Your task to perform on an android device: turn on showing notifications on the lock screen Image 0: 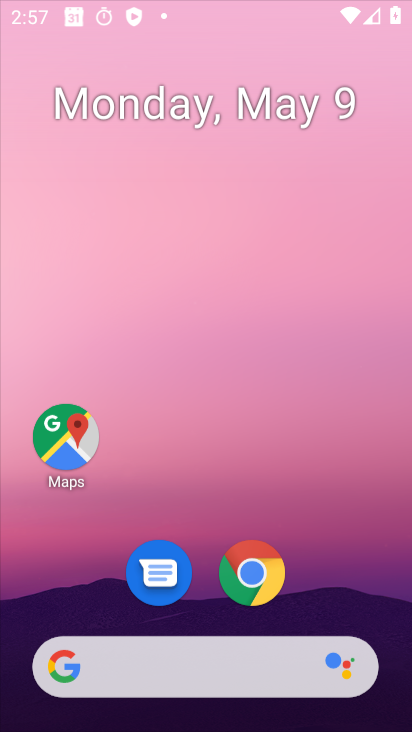
Step 0: click (251, 217)
Your task to perform on an android device: turn on showing notifications on the lock screen Image 1: 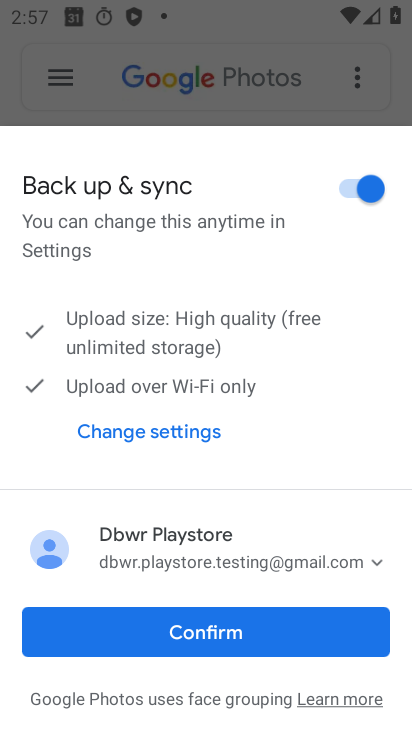
Step 1: click (263, 631)
Your task to perform on an android device: turn on showing notifications on the lock screen Image 2: 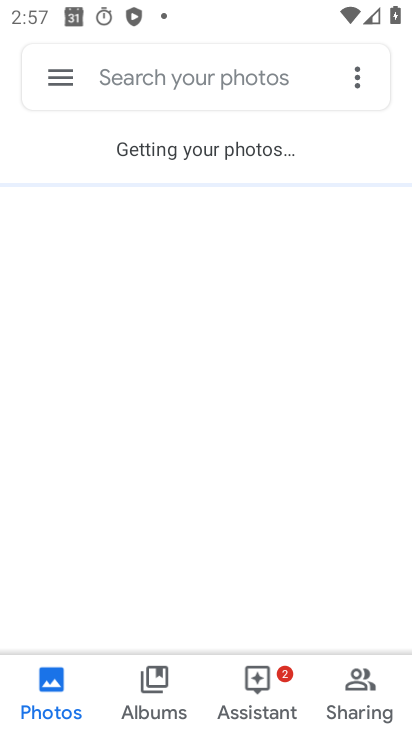
Step 2: press back button
Your task to perform on an android device: turn on showing notifications on the lock screen Image 3: 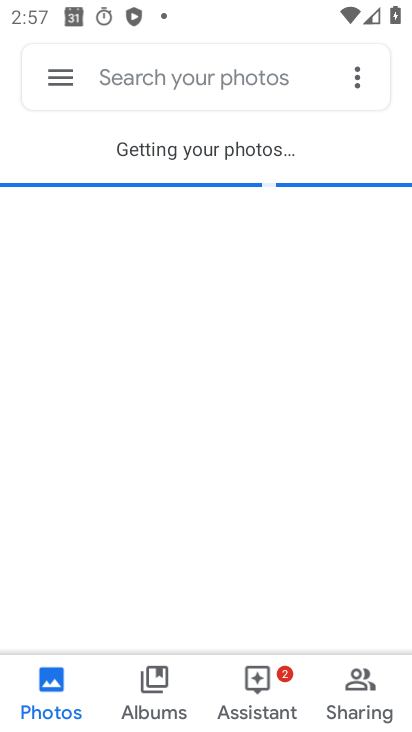
Step 3: press home button
Your task to perform on an android device: turn on showing notifications on the lock screen Image 4: 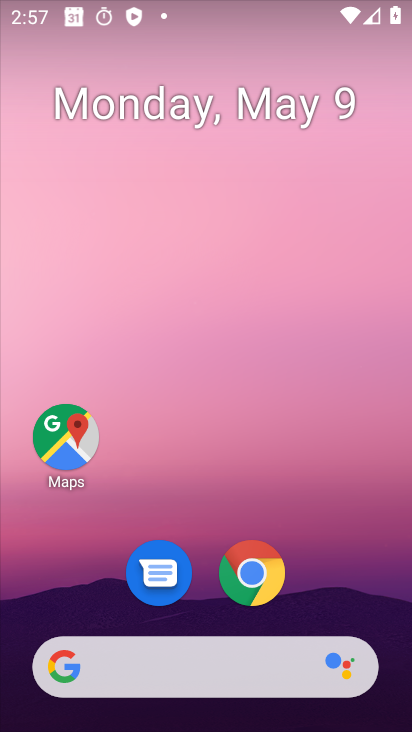
Step 4: drag from (279, 442) to (182, 198)
Your task to perform on an android device: turn on showing notifications on the lock screen Image 5: 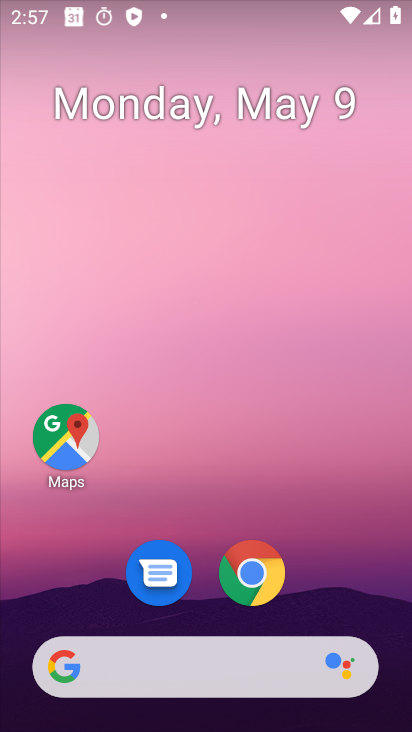
Step 5: drag from (338, 587) to (183, 166)
Your task to perform on an android device: turn on showing notifications on the lock screen Image 6: 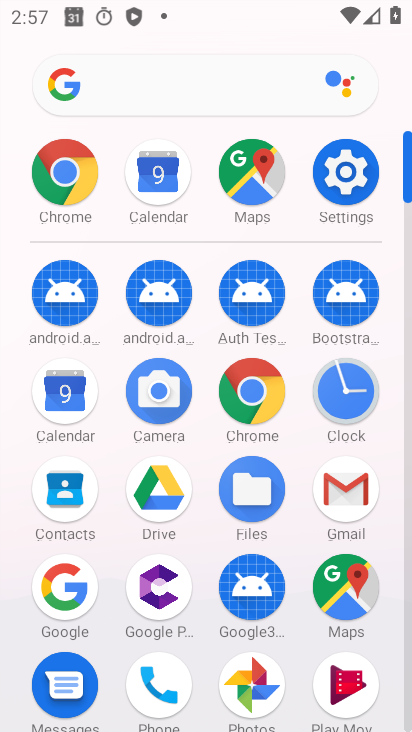
Step 6: click (328, 174)
Your task to perform on an android device: turn on showing notifications on the lock screen Image 7: 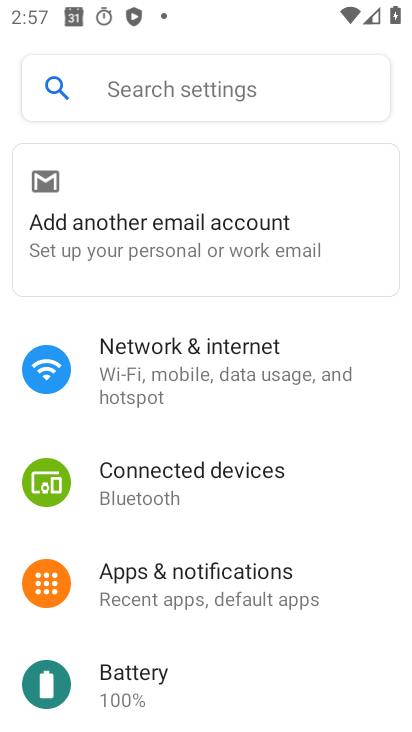
Step 7: click (206, 584)
Your task to perform on an android device: turn on showing notifications on the lock screen Image 8: 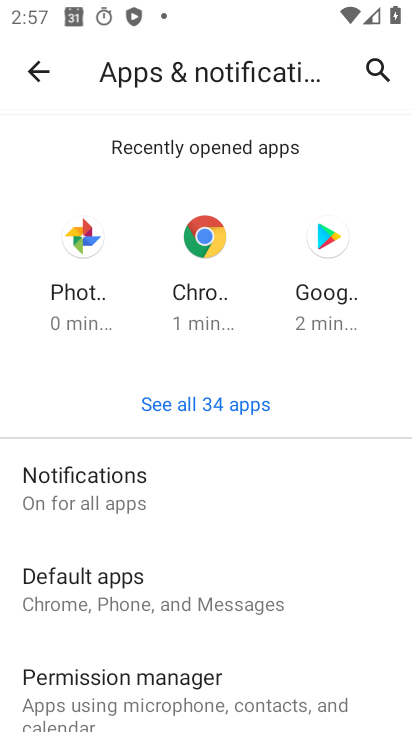
Step 8: click (92, 493)
Your task to perform on an android device: turn on showing notifications on the lock screen Image 9: 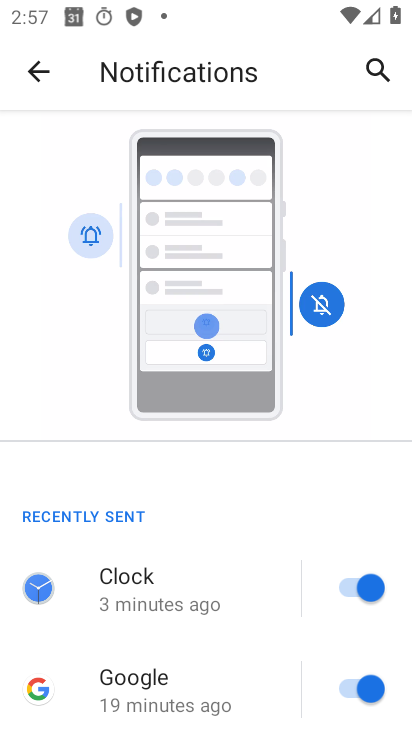
Step 9: drag from (141, 618) to (162, 271)
Your task to perform on an android device: turn on showing notifications on the lock screen Image 10: 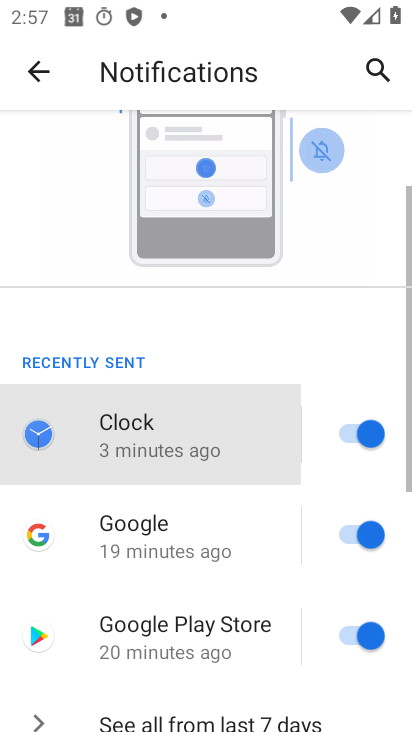
Step 10: click (222, 294)
Your task to perform on an android device: turn on showing notifications on the lock screen Image 11: 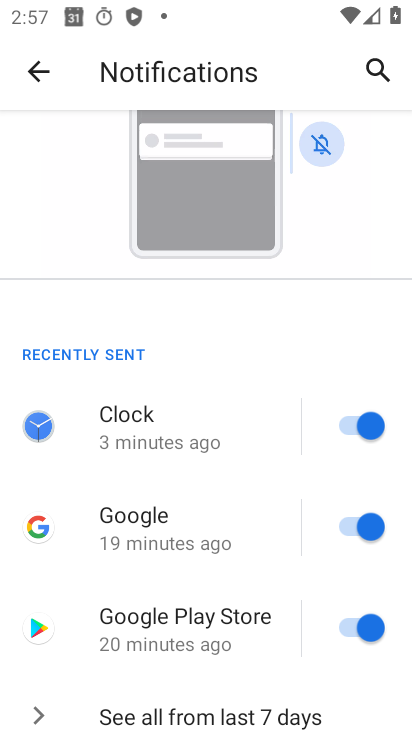
Step 11: drag from (163, 595) to (92, 119)
Your task to perform on an android device: turn on showing notifications on the lock screen Image 12: 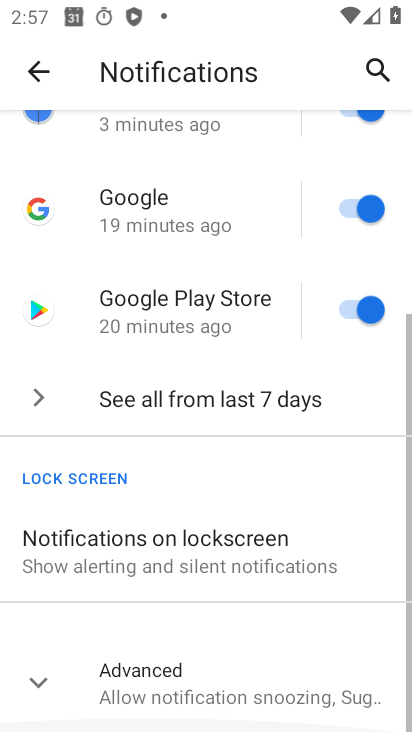
Step 12: drag from (243, 636) to (206, 260)
Your task to perform on an android device: turn on showing notifications on the lock screen Image 13: 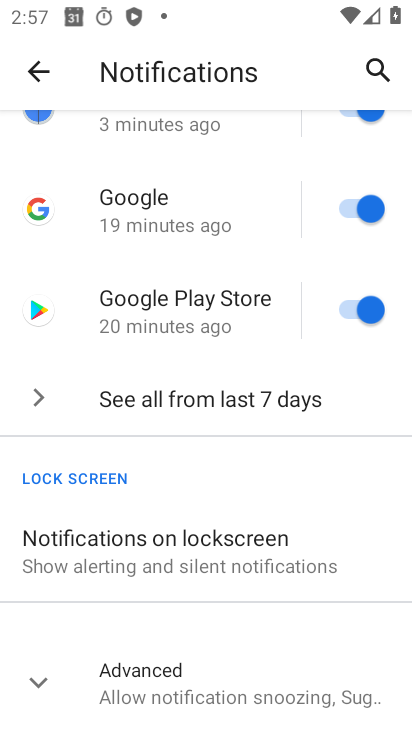
Step 13: click (185, 562)
Your task to perform on an android device: turn on showing notifications on the lock screen Image 14: 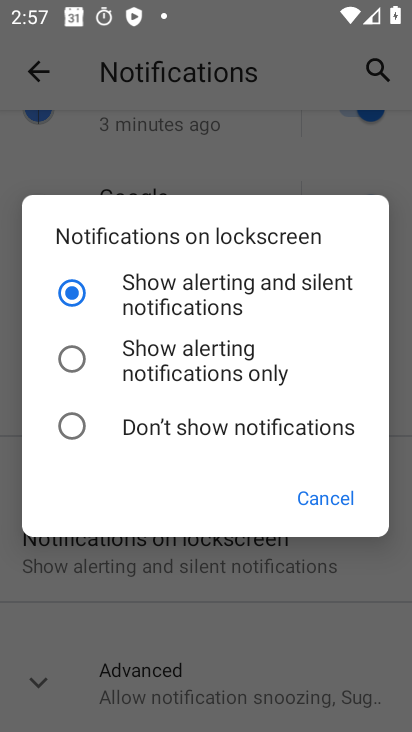
Step 14: click (328, 473)
Your task to perform on an android device: turn on showing notifications on the lock screen Image 15: 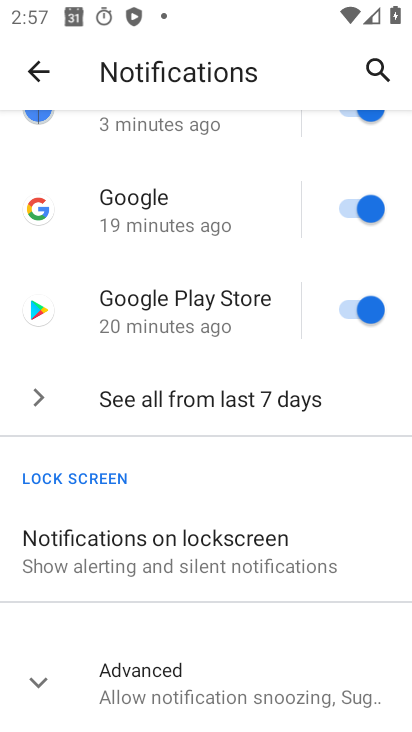
Step 15: drag from (240, 622) to (198, 235)
Your task to perform on an android device: turn on showing notifications on the lock screen Image 16: 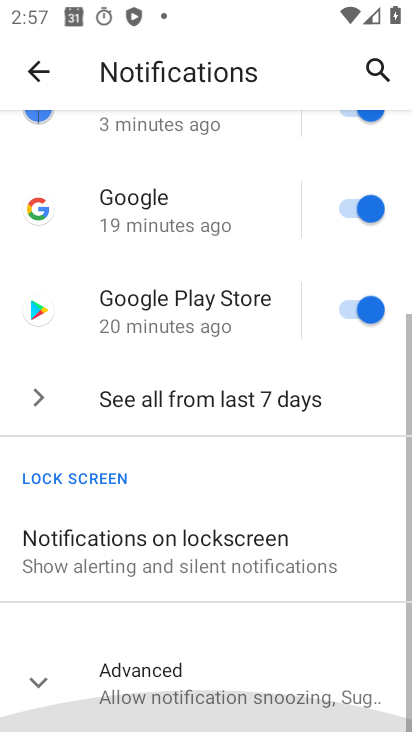
Step 16: drag from (239, 596) to (169, 311)
Your task to perform on an android device: turn on showing notifications on the lock screen Image 17: 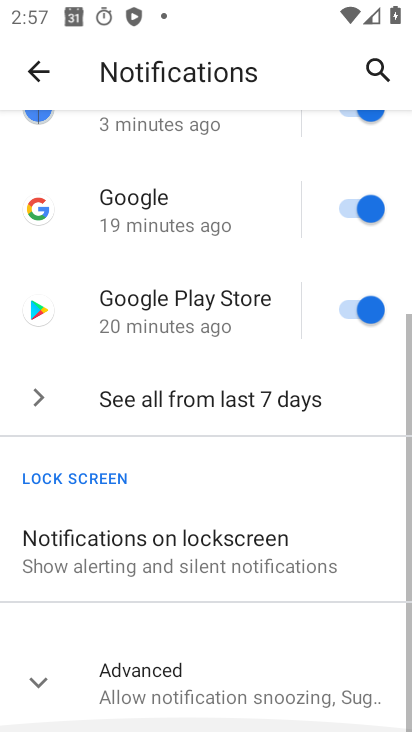
Step 17: click (164, 691)
Your task to perform on an android device: turn on showing notifications on the lock screen Image 18: 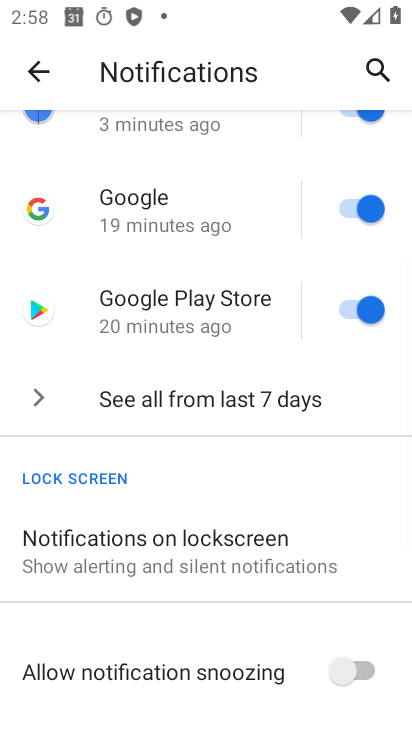
Step 18: drag from (257, 654) to (144, 101)
Your task to perform on an android device: turn on showing notifications on the lock screen Image 19: 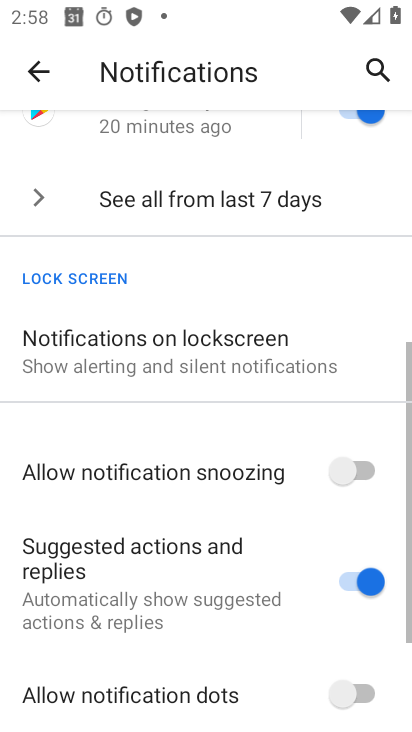
Step 19: drag from (196, 423) to (196, 166)
Your task to perform on an android device: turn on showing notifications on the lock screen Image 20: 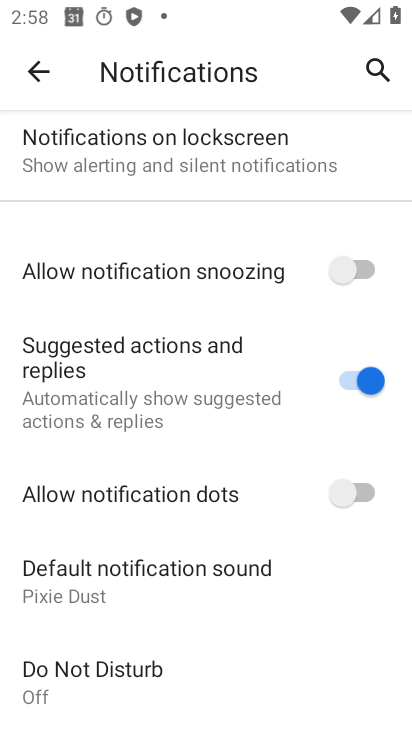
Step 20: click (349, 262)
Your task to perform on an android device: turn on showing notifications on the lock screen Image 21: 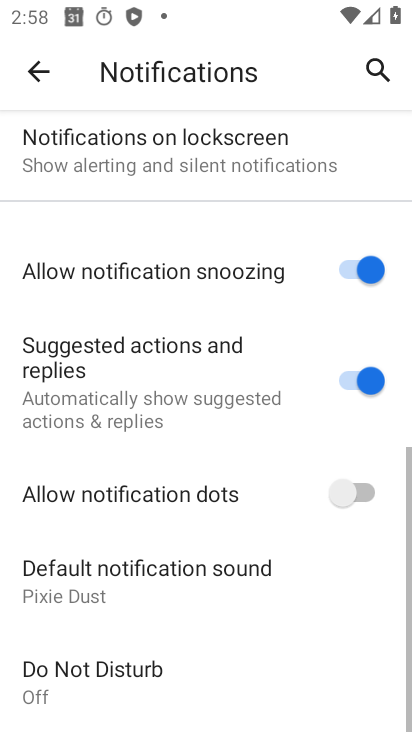
Step 21: click (336, 489)
Your task to perform on an android device: turn on showing notifications on the lock screen Image 22: 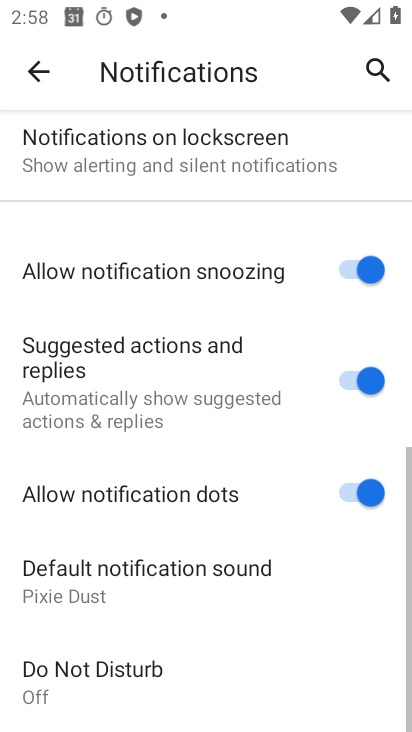
Step 22: task complete